Your task to perform on an android device: open chrome privacy settings Image 0: 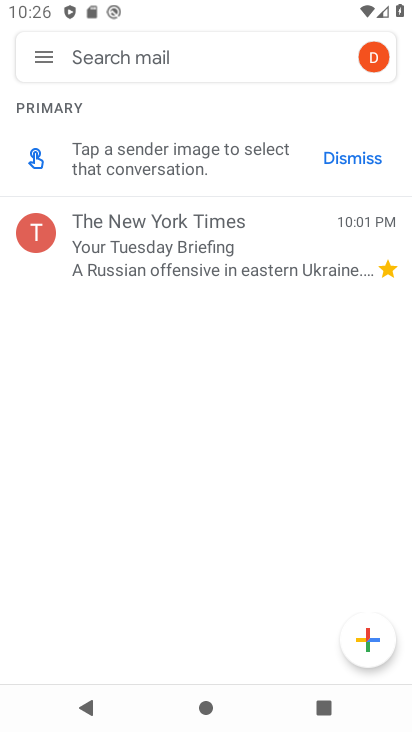
Step 0: press home button
Your task to perform on an android device: open chrome privacy settings Image 1: 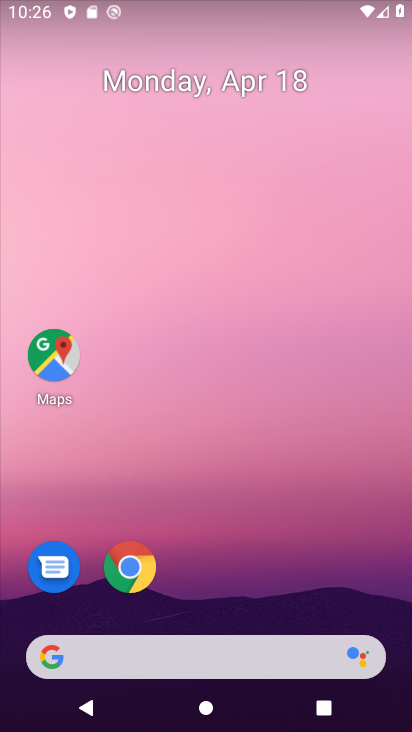
Step 1: click (135, 574)
Your task to perform on an android device: open chrome privacy settings Image 2: 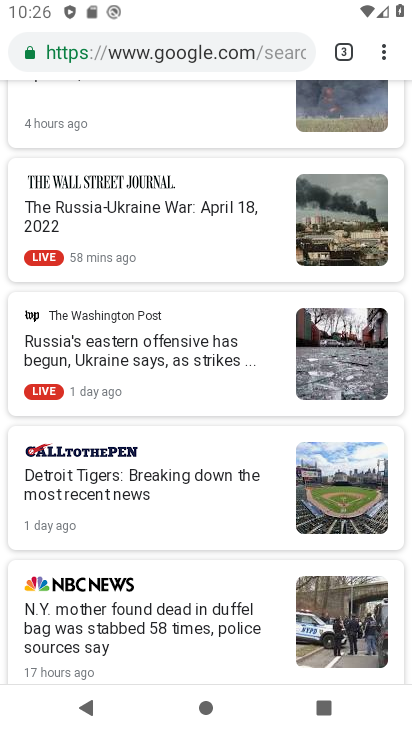
Step 2: click (380, 52)
Your task to perform on an android device: open chrome privacy settings Image 3: 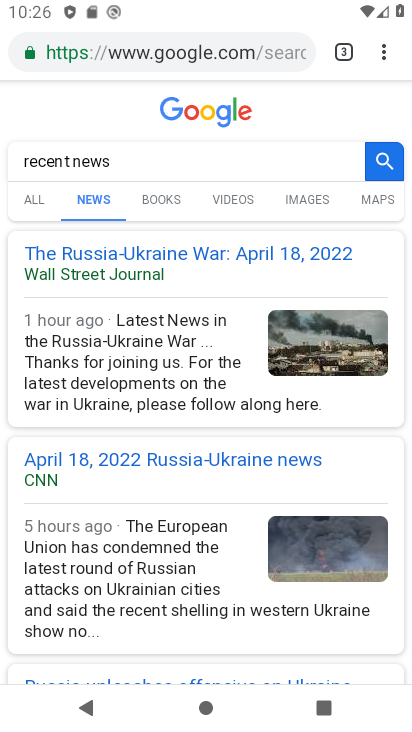
Step 3: click (382, 54)
Your task to perform on an android device: open chrome privacy settings Image 4: 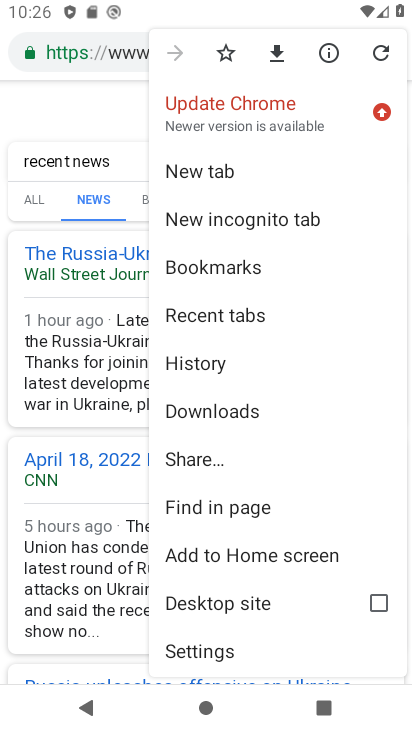
Step 4: click (233, 653)
Your task to perform on an android device: open chrome privacy settings Image 5: 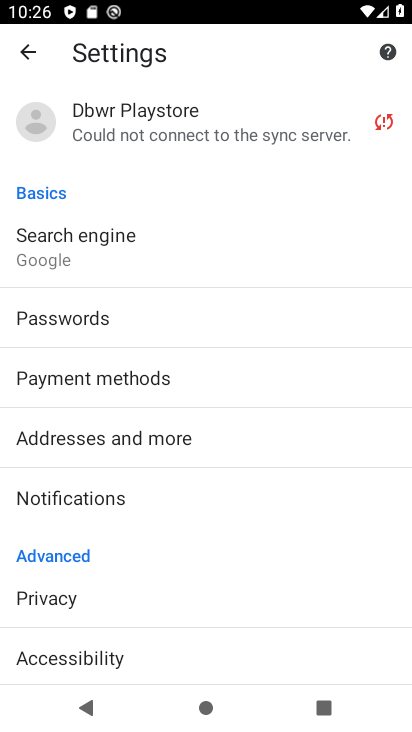
Step 5: click (56, 601)
Your task to perform on an android device: open chrome privacy settings Image 6: 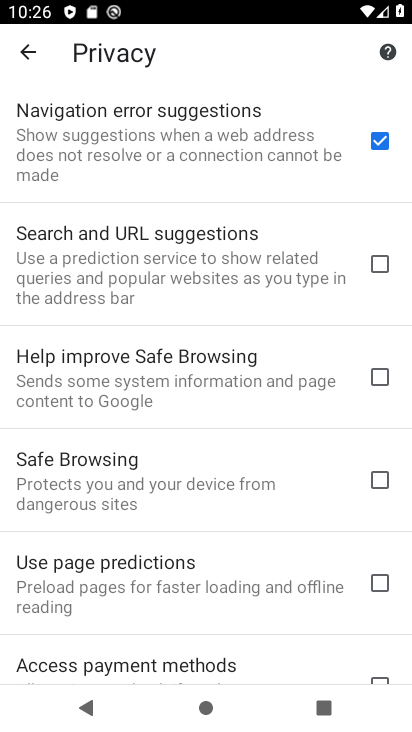
Step 6: task complete